Your task to perform on an android device: turn smart compose on in the gmail app Image 0: 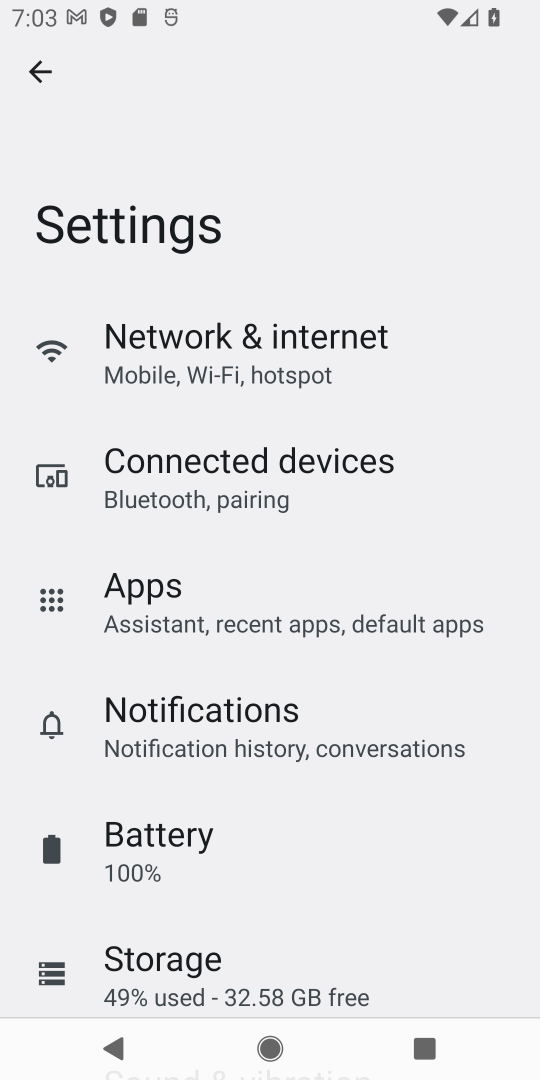
Step 0: press home button
Your task to perform on an android device: turn smart compose on in the gmail app Image 1: 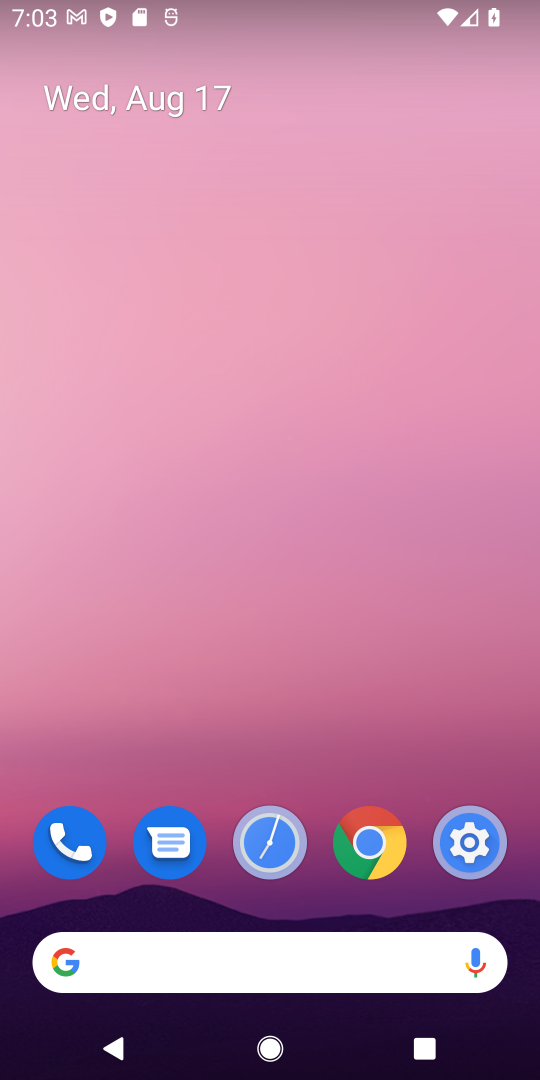
Step 1: drag from (265, 735) to (268, 4)
Your task to perform on an android device: turn smart compose on in the gmail app Image 2: 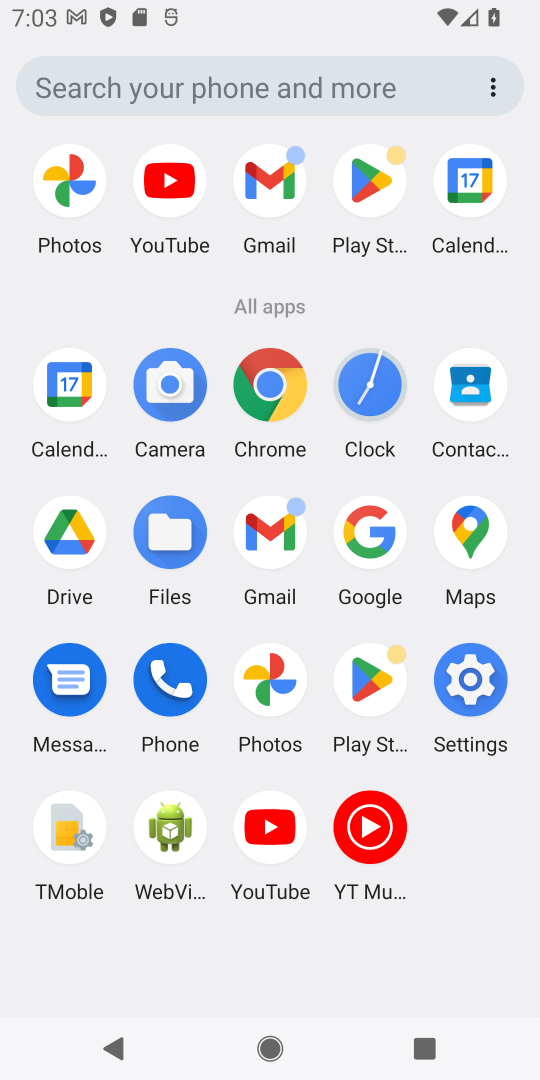
Step 2: click (269, 185)
Your task to perform on an android device: turn smart compose on in the gmail app Image 3: 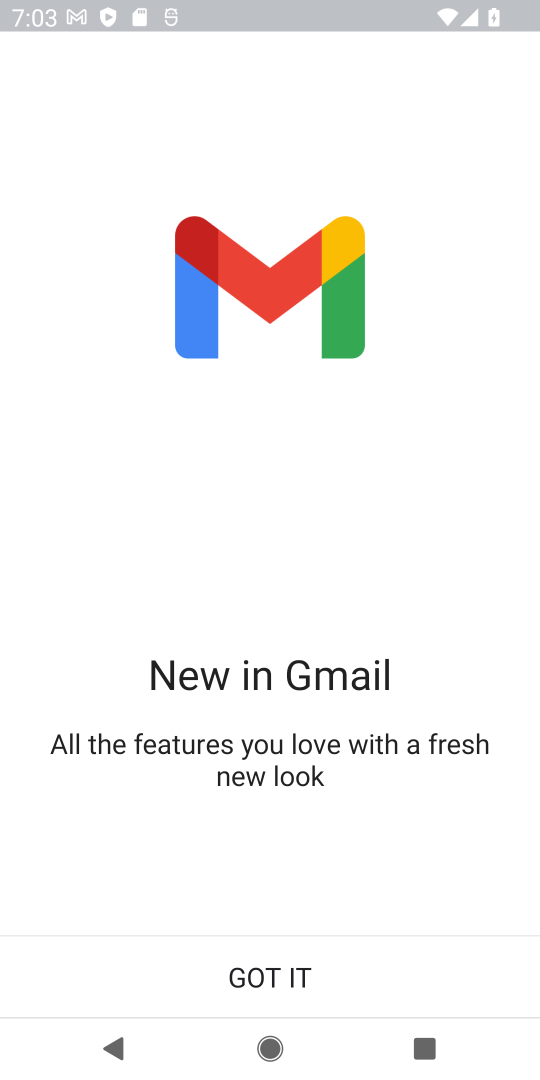
Step 3: click (368, 981)
Your task to perform on an android device: turn smart compose on in the gmail app Image 4: 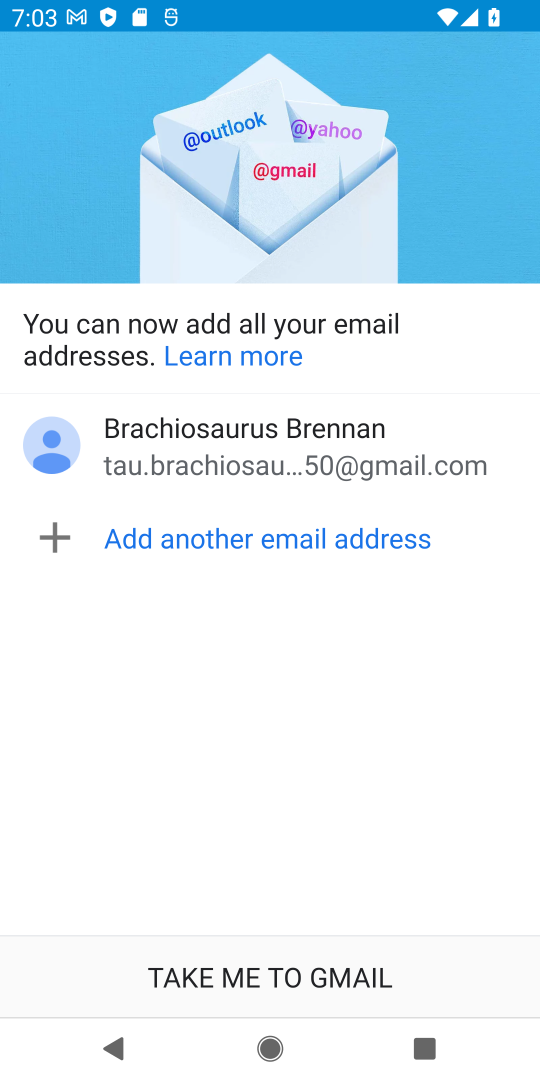
Step 4: click (369, 979)
Your task to perform on an android device: turn smart compose on in the gmail app Image 5: 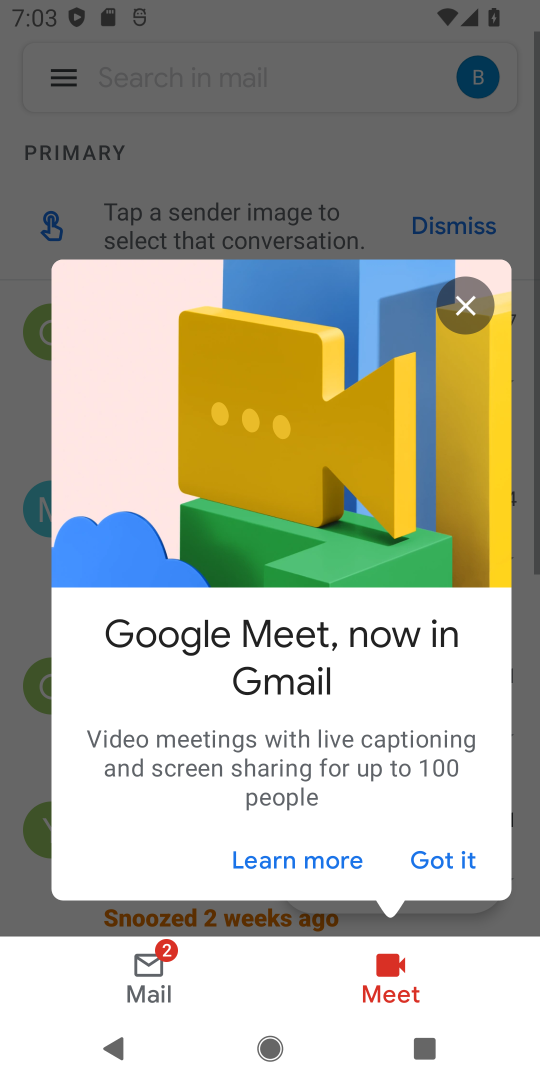
Step 5: click (466, 303)
Your task to perform on an android device: turn smart compose on in the gmail app Image 6: 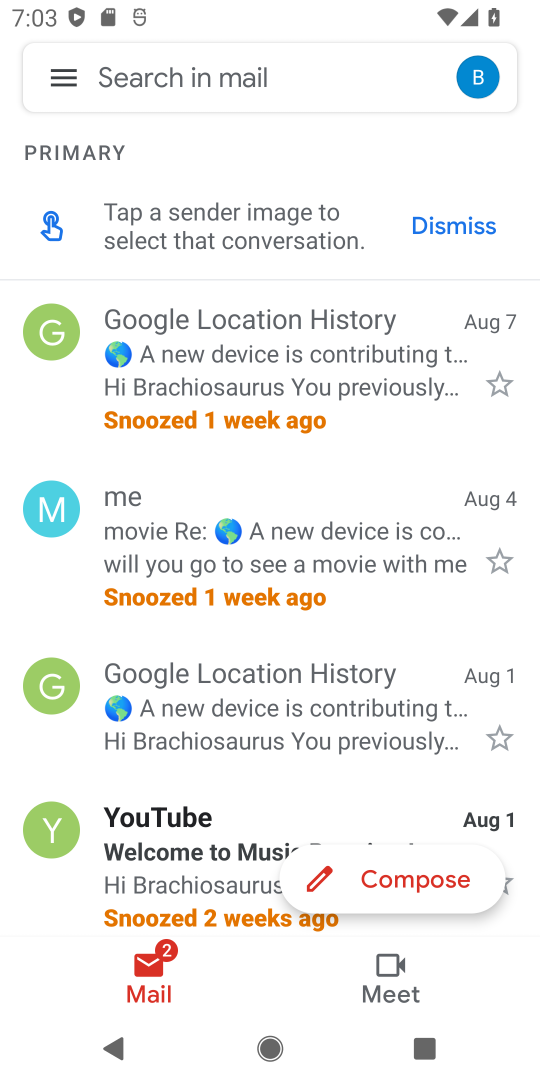
Step 6: click (65, 82)
Your task to perform on an android device: turn smart compose on in the gmail app Image 7: 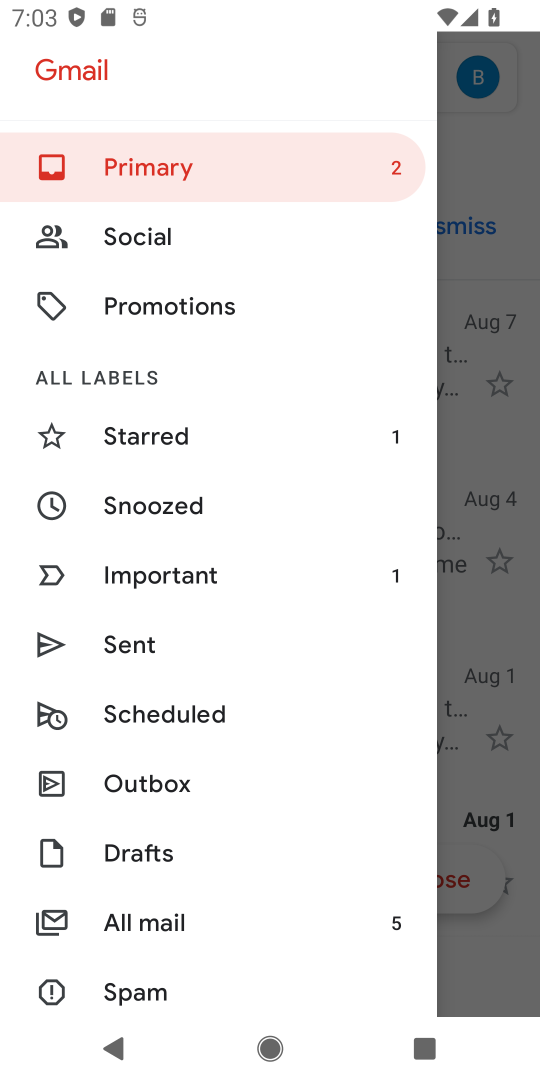
Step 7: drag from (166, 779) to (192, 335)
Your task to perform on an android device: turn smart compose on in the gmail app Image 8: 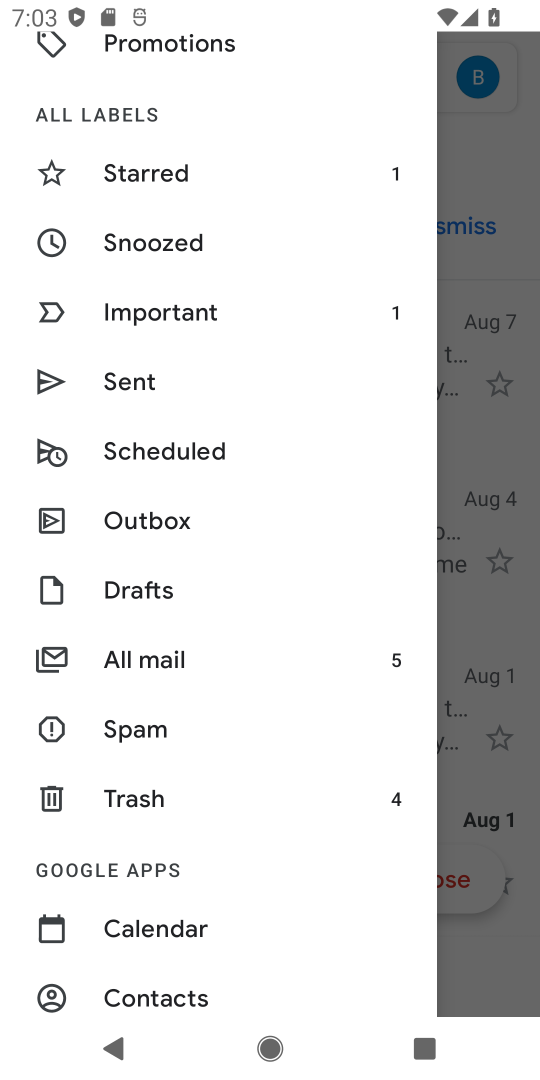
Step 8: drag from (178, 913) to (205, 442)
Your task to perform on an android device: turn smart compose on in the gmail app Image 9: 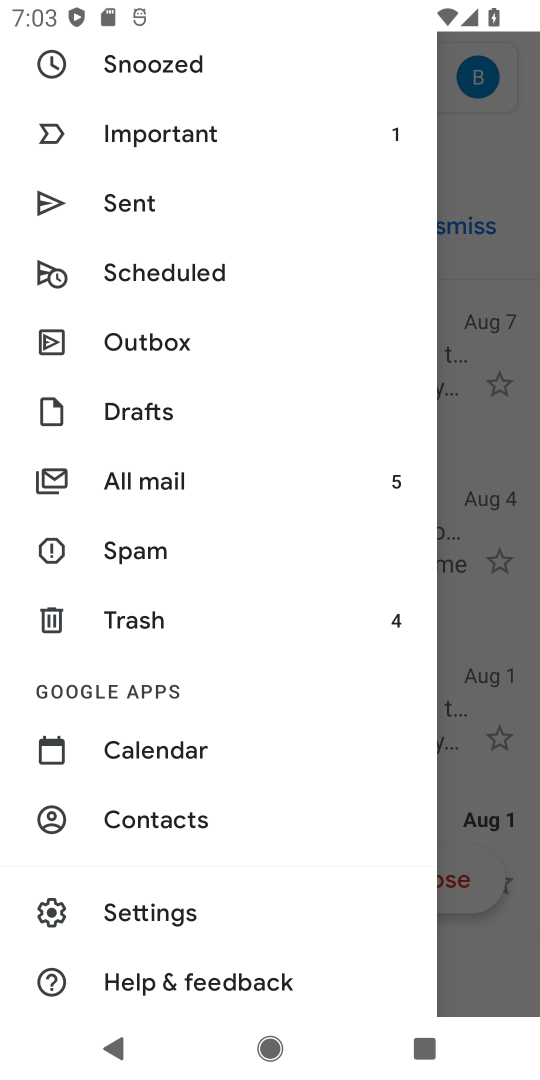
Step 9: click (188, 898)
Your task to perform on an android device: turn smart compose on in the gmail app Image 10: 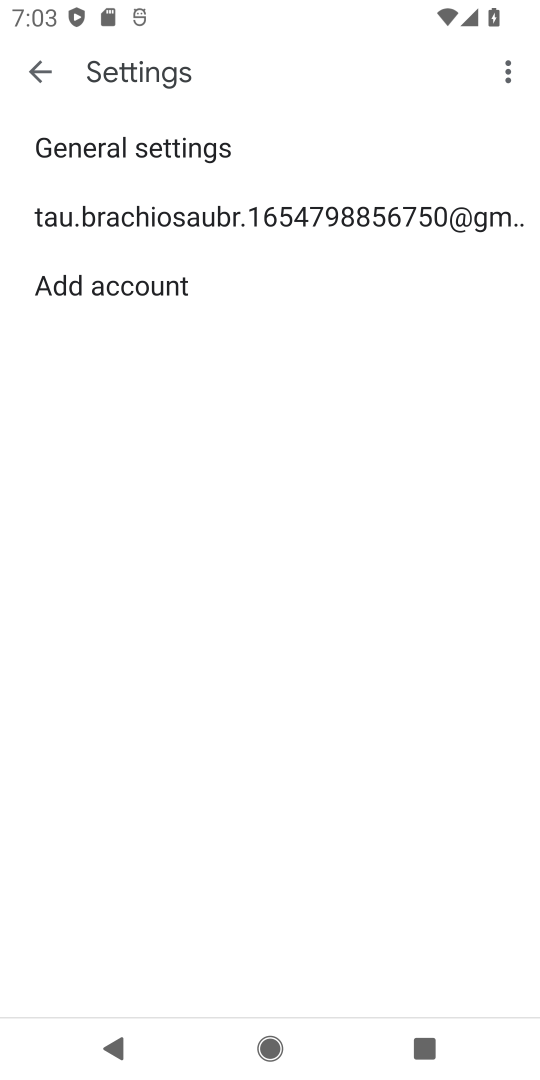
Step 10: click (276, 206)
Your task to perform on an android device: turn smart compose on in the gmail app Image 11: 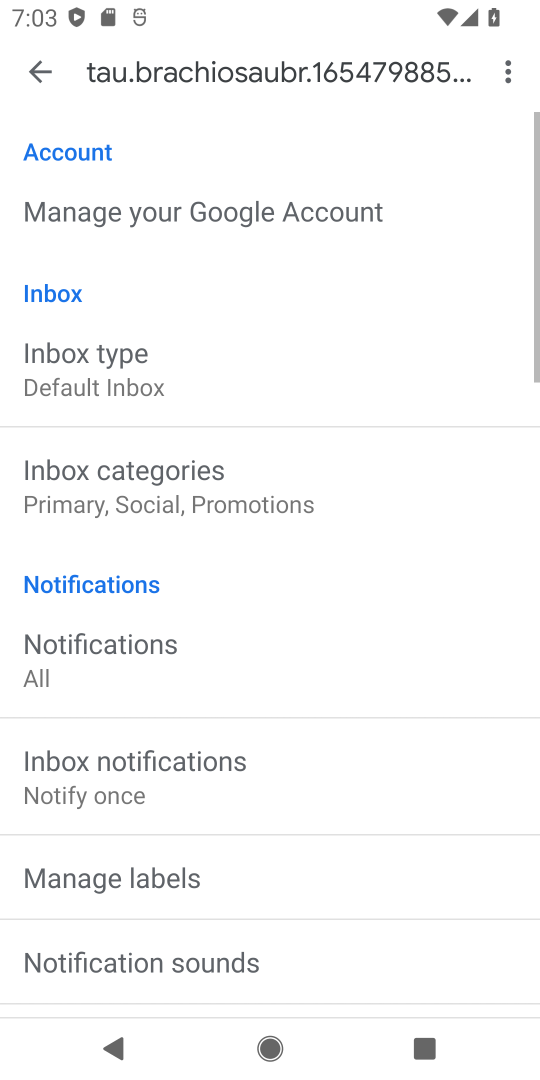
Step 11: drag from (310, 924) to (315, 69)
Your task to perform on an android device: turn smart compose on in the gmail app Image 12: 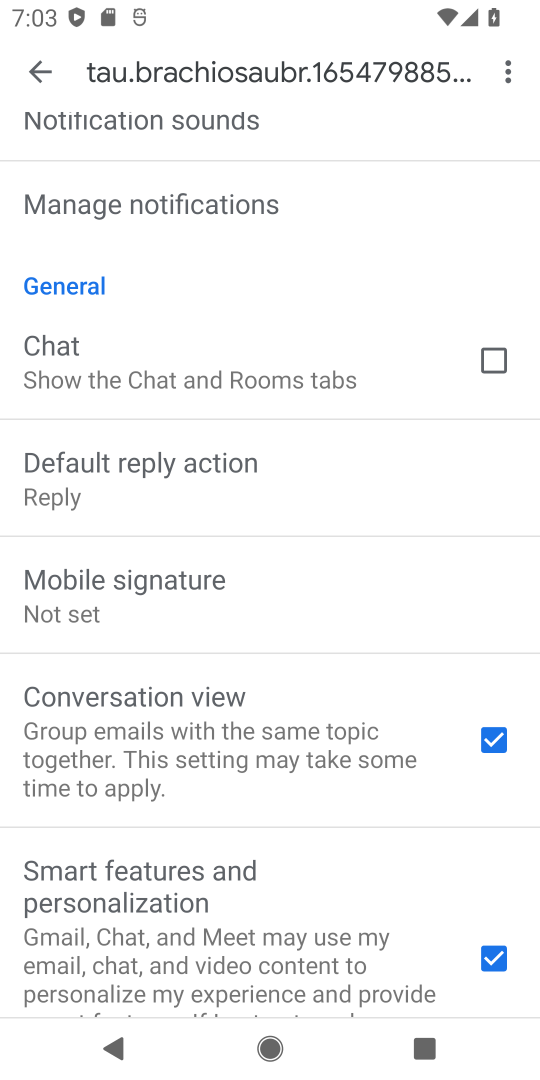
Step 12: drag from (355, 820) to (365, 182)
Your task to perform on an android device: turn smart compose on in the gmail app Image 13: 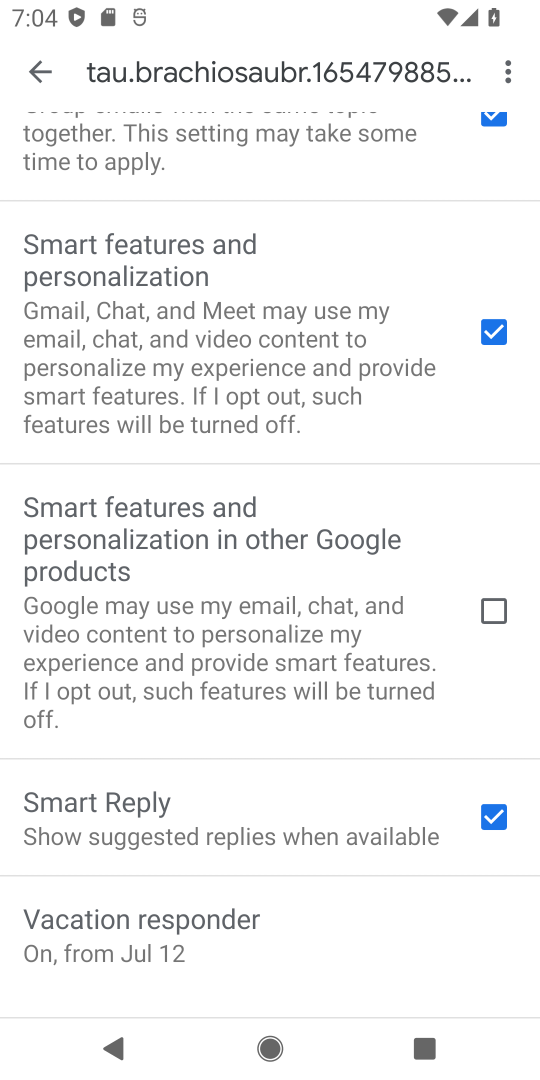
Step 13: click (494, 598)
Your task to perform on an android device: turn smart compose on in the gmail app Image 14: 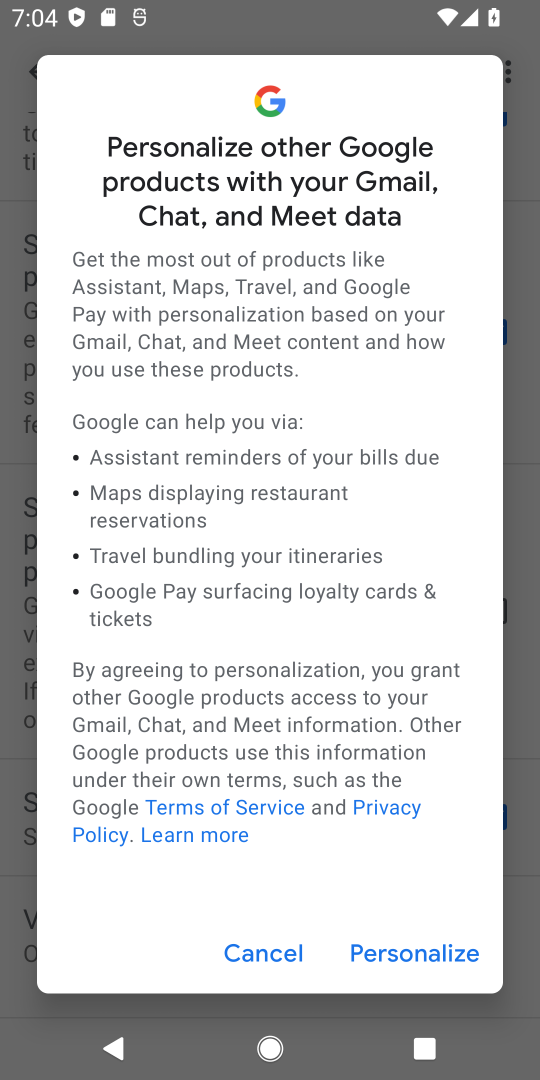
Step 14: click (281, 950)
Your task to perform on an android device: turn smart compose on in the gmail app Image 15: 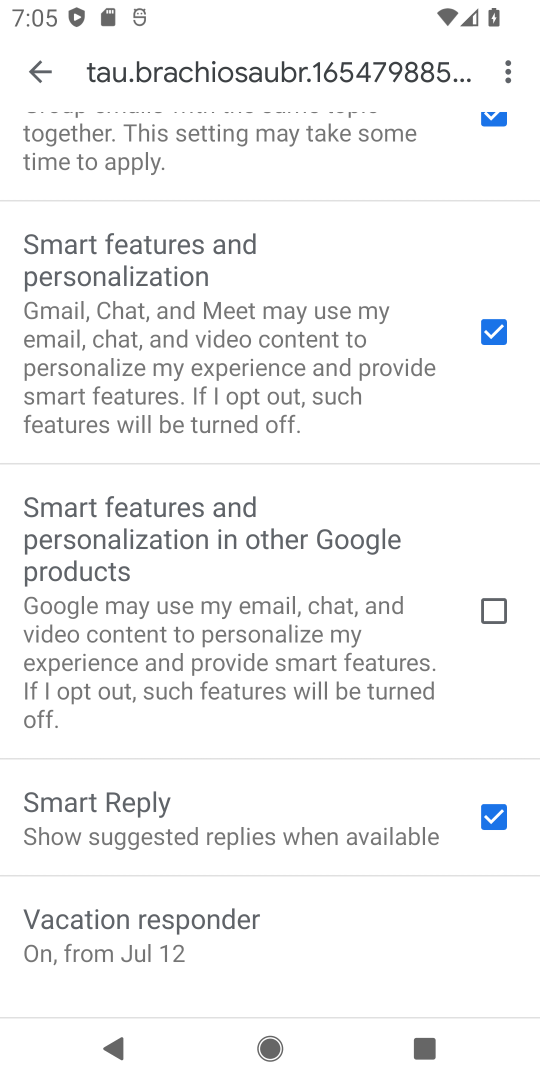
Step 15: task complete